Your task to perform on an android device: See recent photos Image 0: 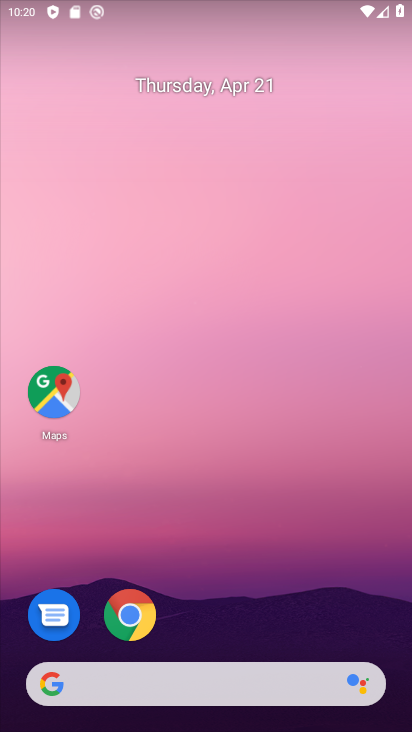
Step 0: task impossible